Your task to perform on an android device: Open Chrome and go to the settings page Image 0: 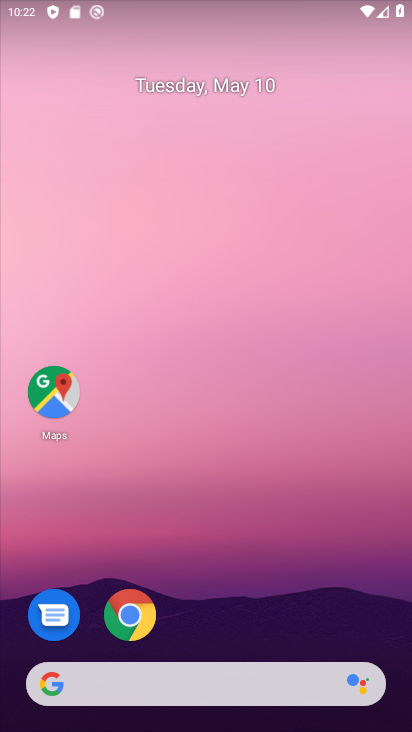
Step 0: click (130, 615)
Your task to perform on an android device: Open Chrome and go to the settings page Image 1: 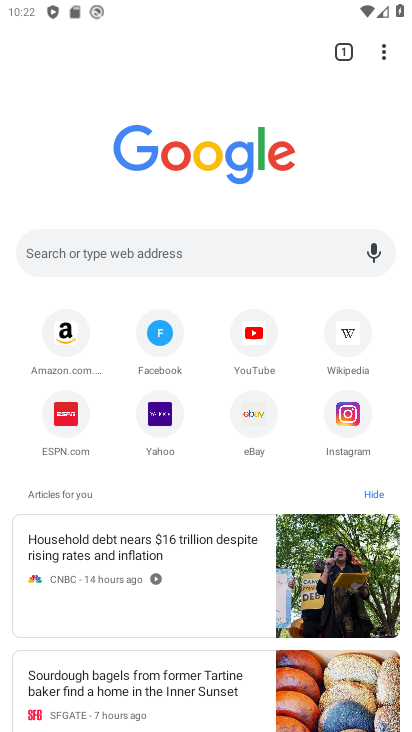
Step 1: click (385, 55)
Your task to perform on an android device: Open Chrome and go to the settings page Image 2: 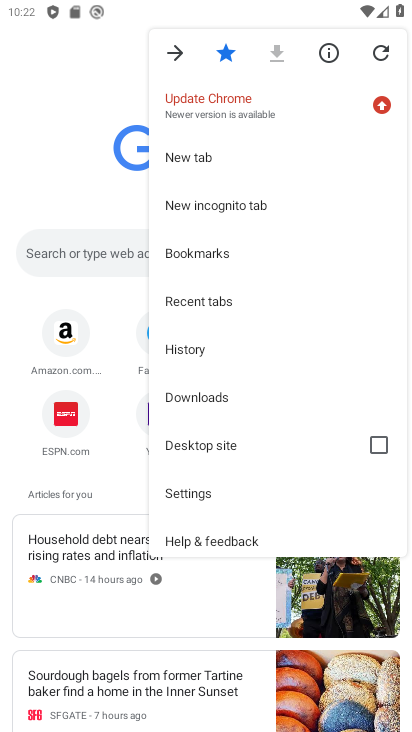
Step 2: click (182, 490)
Your task to perform on an android device: Open Chrome and go to the settings page Image 3: 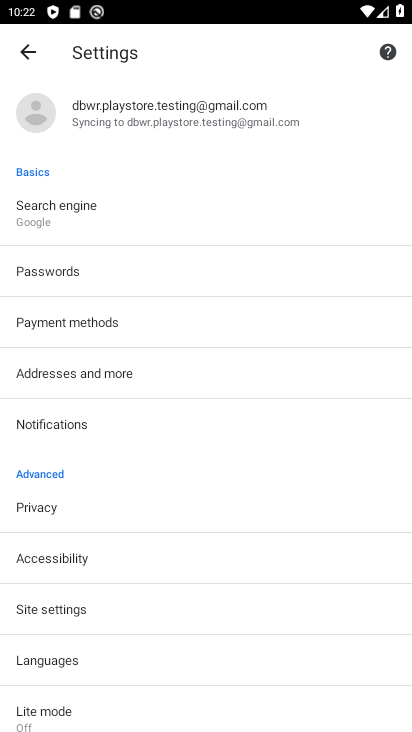
Step 3: task complete